Your task to perform on an android device: delete a single message in the gmail app Image 0: 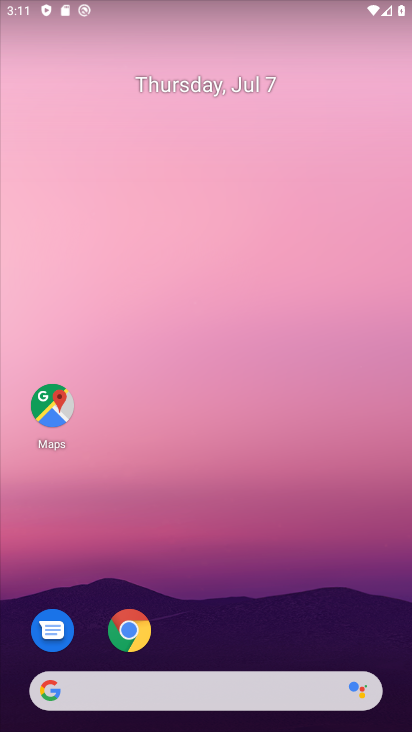
Step 0: drag from (314, 650) to (329, 114)
Your task to perform on an android device: delete a single message in the gmail app Image 1: 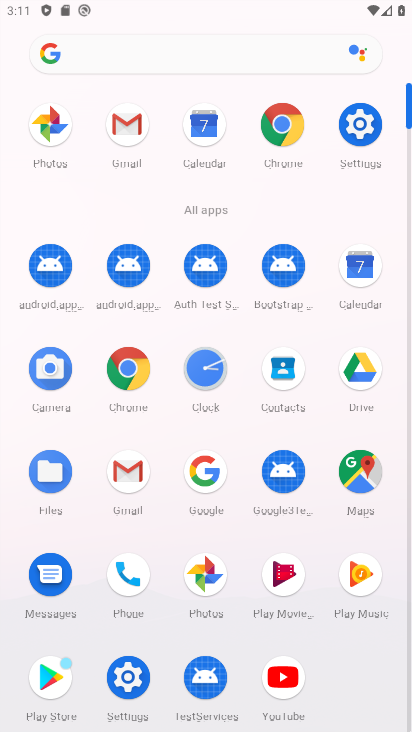
Step 1: click (133, 131)
Your task to perform on an android device: delete a single message in the gmail app Image 2: 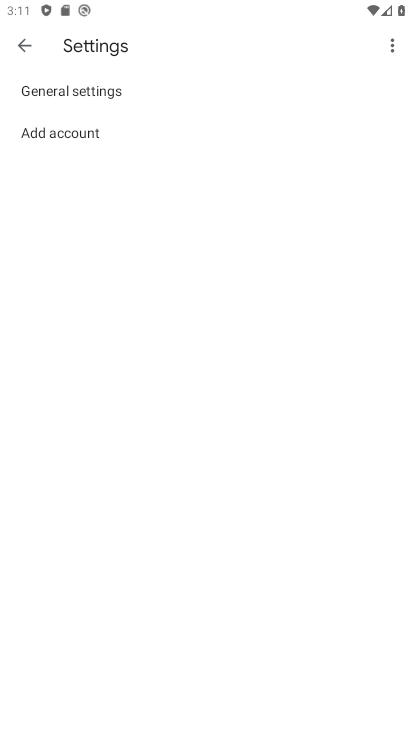
Step 2: click (21, 43)
Your task to perform on an android device: delete a single message in the gmail app Image 3: 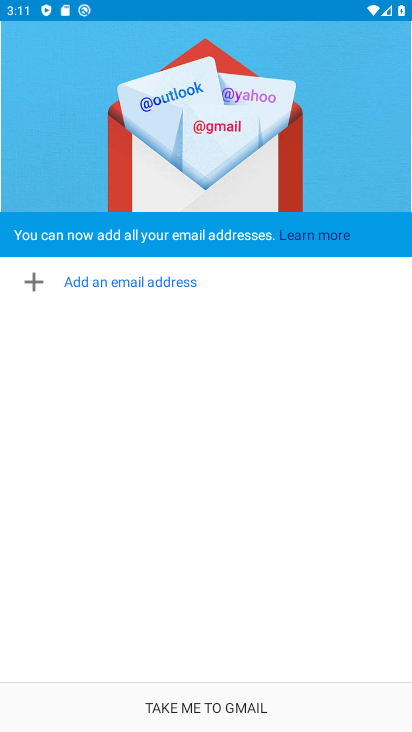
Step 3: click (165, 715)
Your task to perform on an android device: delete a single message in the gmail app Image 4: 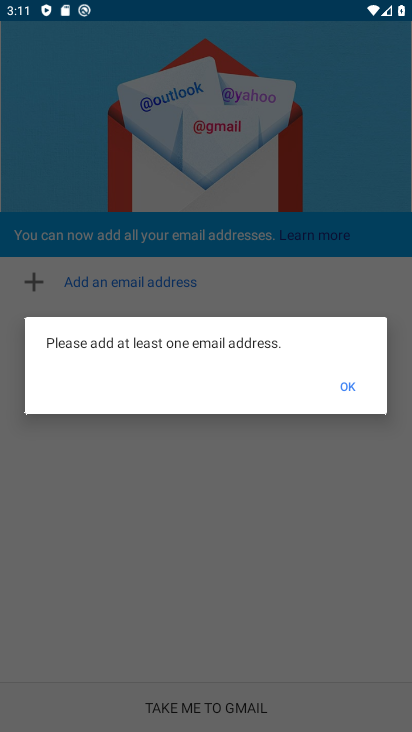
Step 4: task complete